Your task to perform on an android device: open sync settings in chrome Image 0: 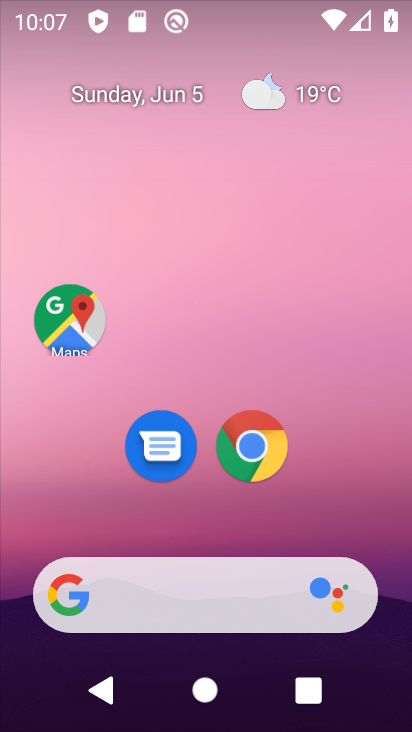
Step 0: click (265, 450)
Your task to perform on an android device: open sync settings in chrome Image 1: 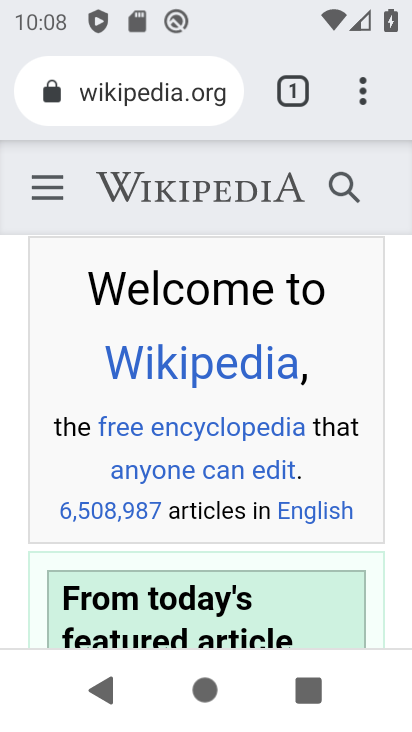
Step 1: click (358, 77)
Your task to perform on an android device: open sync settings in chrome Image 2: 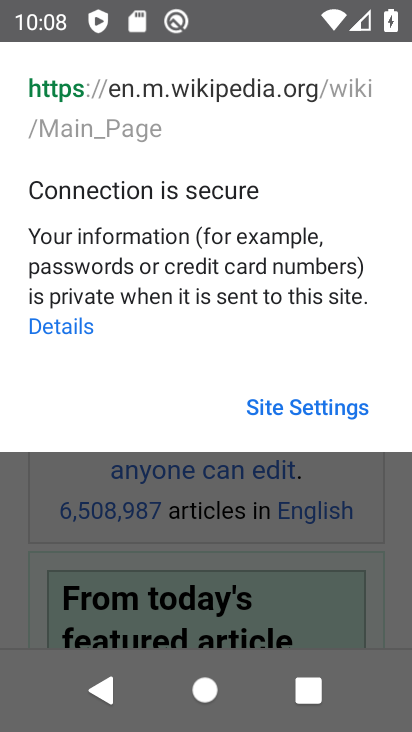
Step 2: click (254, 582)
Your task to perform on an android device: open sync settings in chrome Image 3: 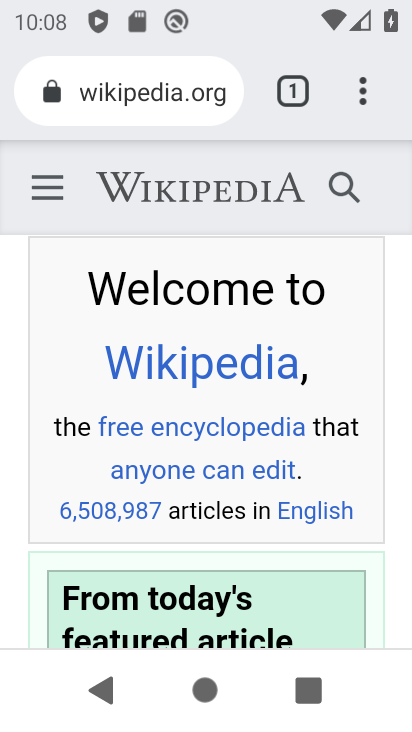
Step 3: click (365, 89)
Your task to perform on an android device: open sync settings in chrome Image 4: 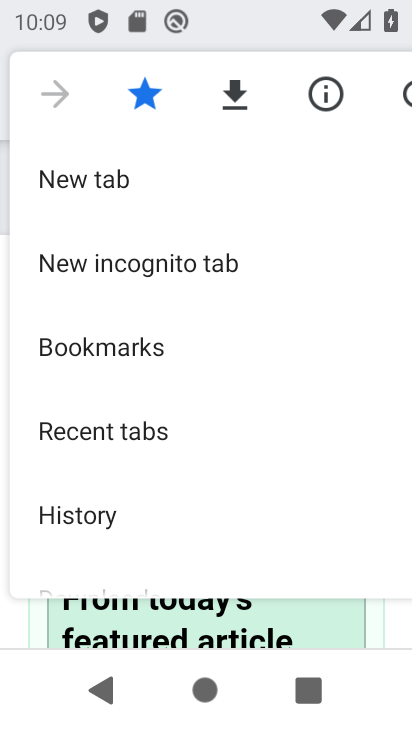
Step 4: drag from (120, 552) to (75, 86)
Your task to perform on an android device: open sync settings in chrome Image 5: 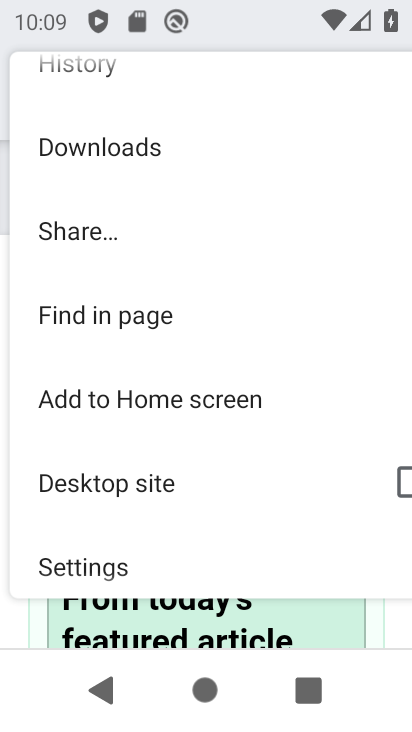
Step 5: click (161, 559)
Your task to perform on an android device: open sync settings in chrome Image 6: 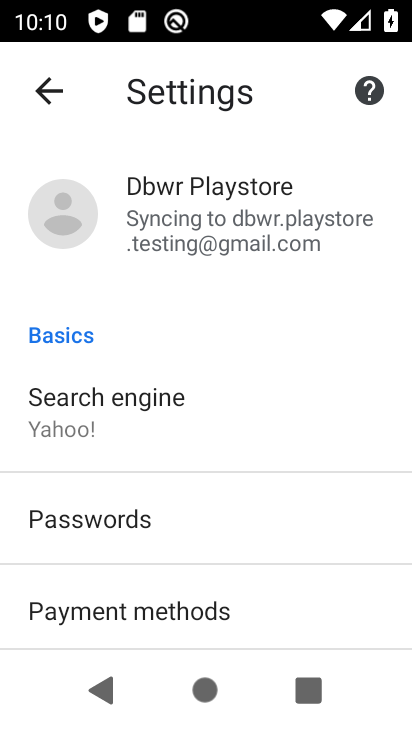
Step 6: click (181, 242)
Your task to perform on an android device: open sync settings in chrome Image 7: 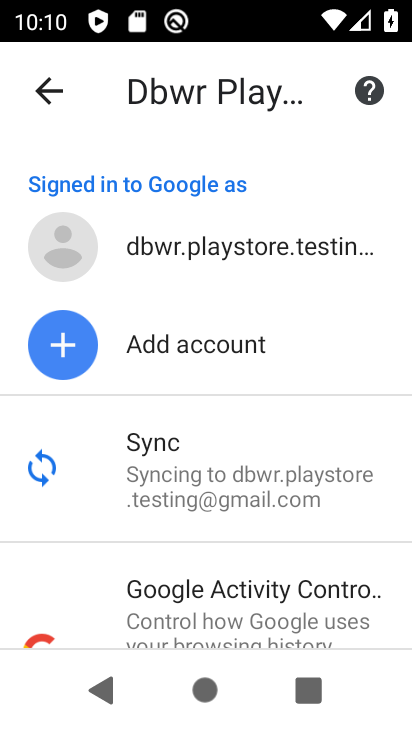
Step 7: click (246, 500)
Your task to perform on an android device: open sync settings in chrome Image 8: 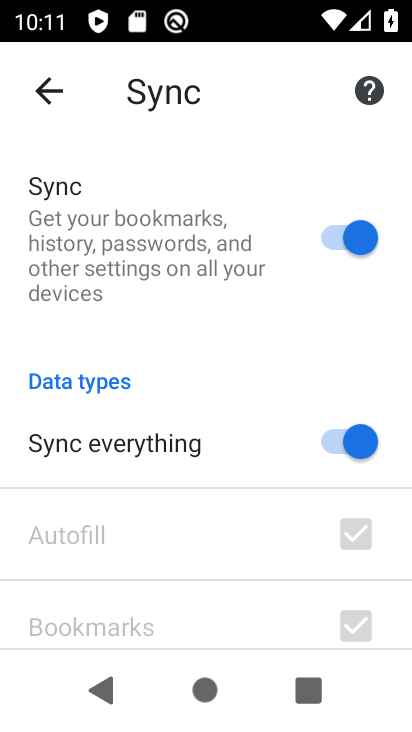
Step 8: task complete